Your task to perform on an android device: Open privacy settings Image 0: 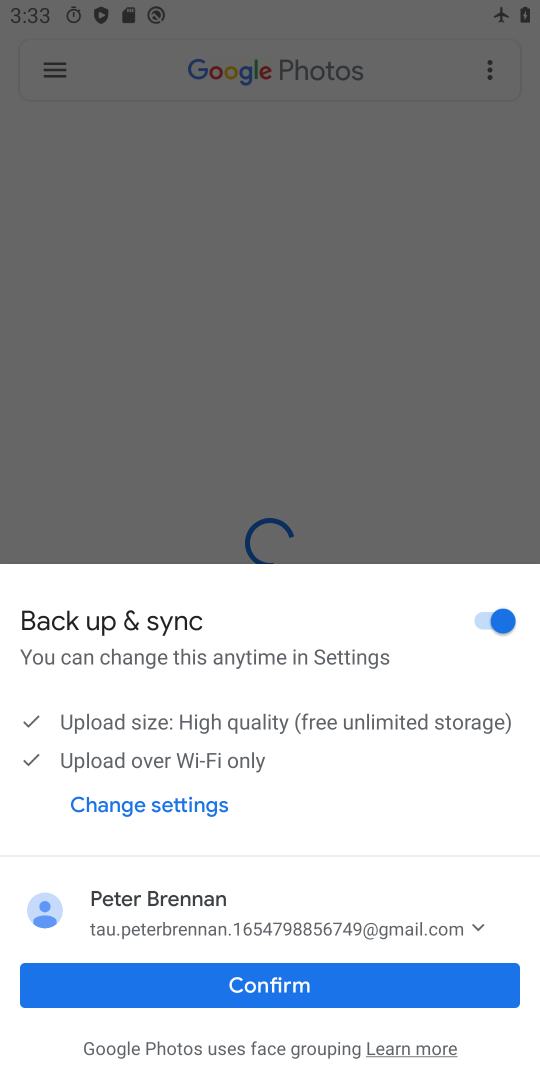
Step 0: press home button
Your task to perform on an android device: Open privacy settings Image 1: 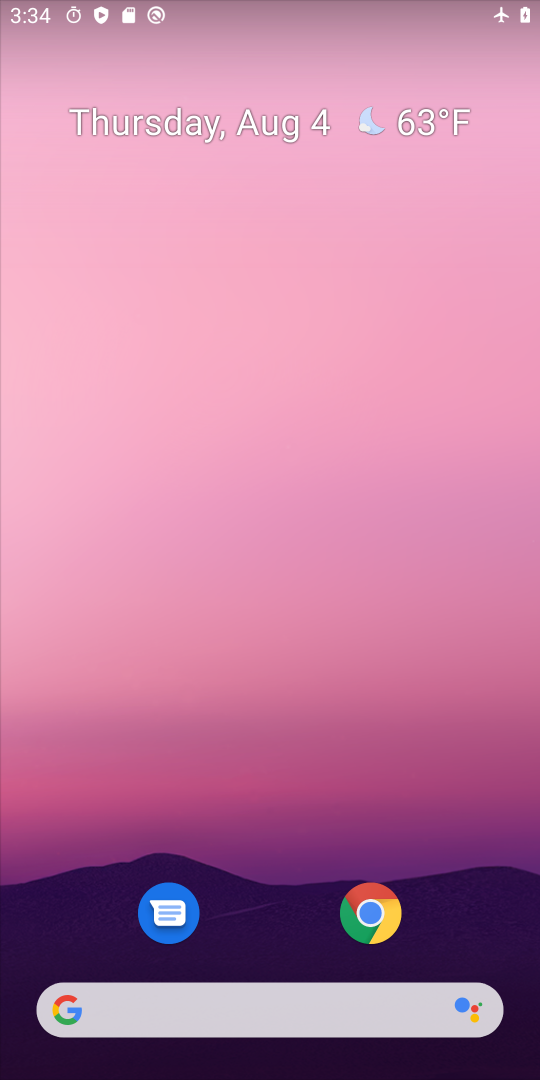
Step 1: drag from (370, 368) to (297, 0)
Your task to perform on an android device: Open privacy settings Image 2: 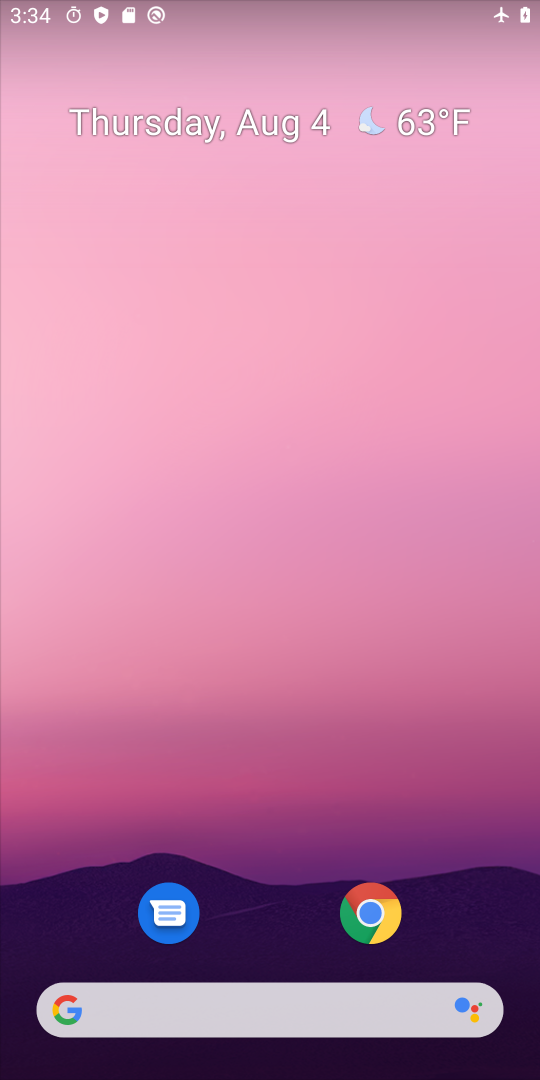
Step 2: drag from (283, 890) to (537, 117)
Your task to perform on an android device: Open privacy settings Image 3: 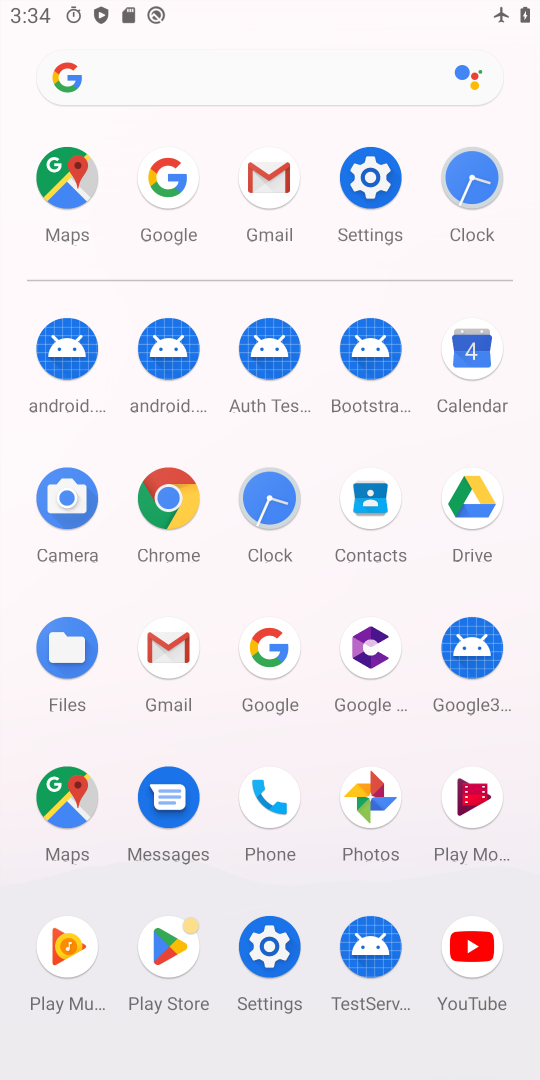
Step 3: click (344, 190)
Your task to perform on an android device: Open privacy settings Image 4: 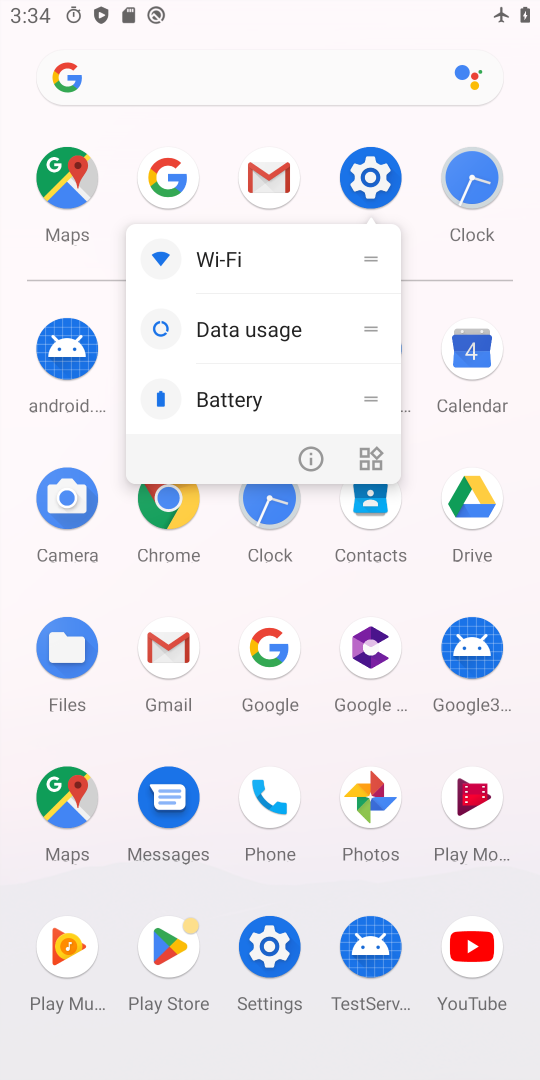
Step 4: click (369, 171)
Your task to perform on an android device: Open privacy settings Image 5: 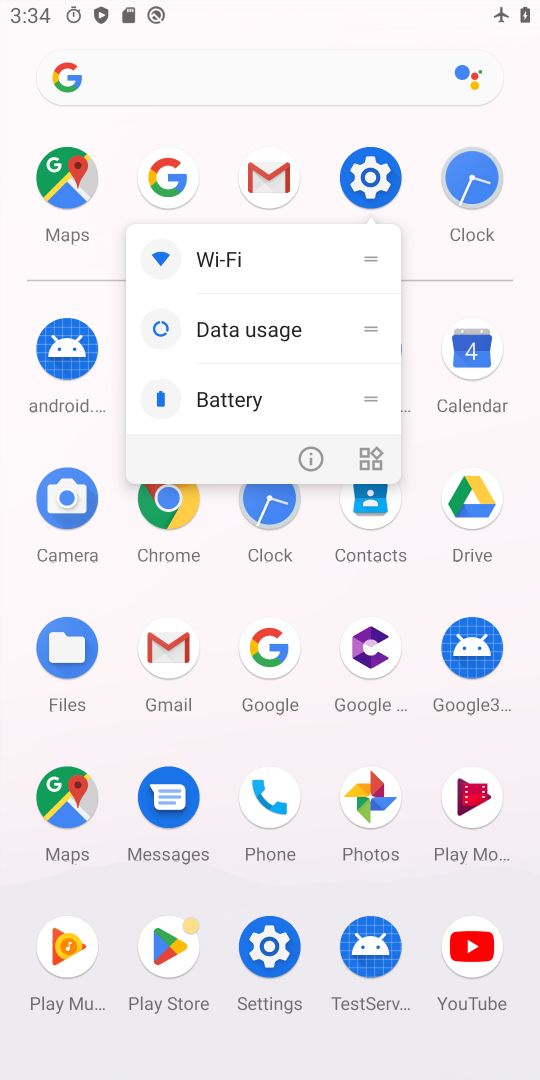
Step 5: click (374, 158)
Your task to perform on an android device: Open privacy settings Image 6: 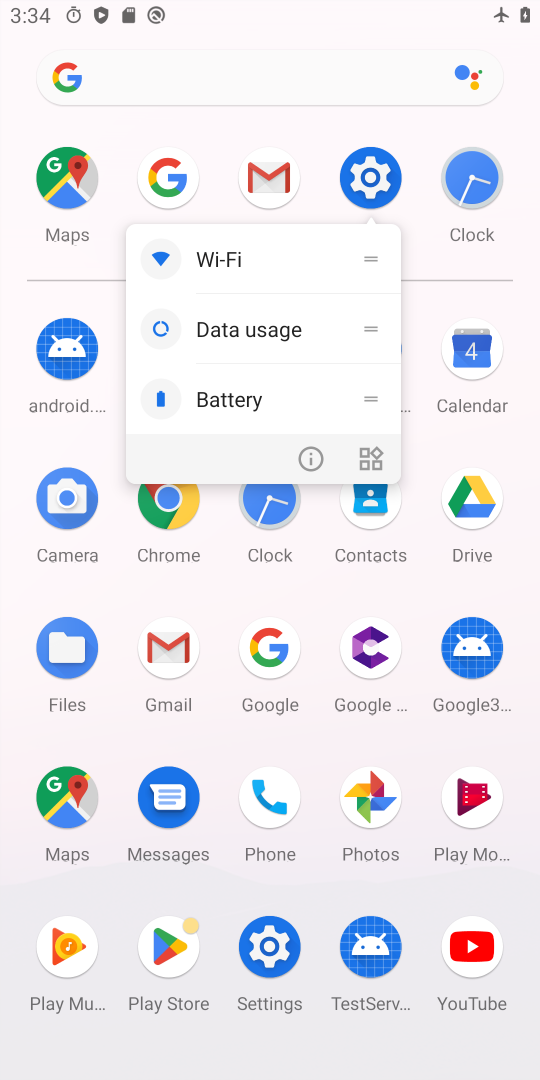
Step 6: click (374, 158)
Your task to perform on an android device: Open privacy settings Image 7: 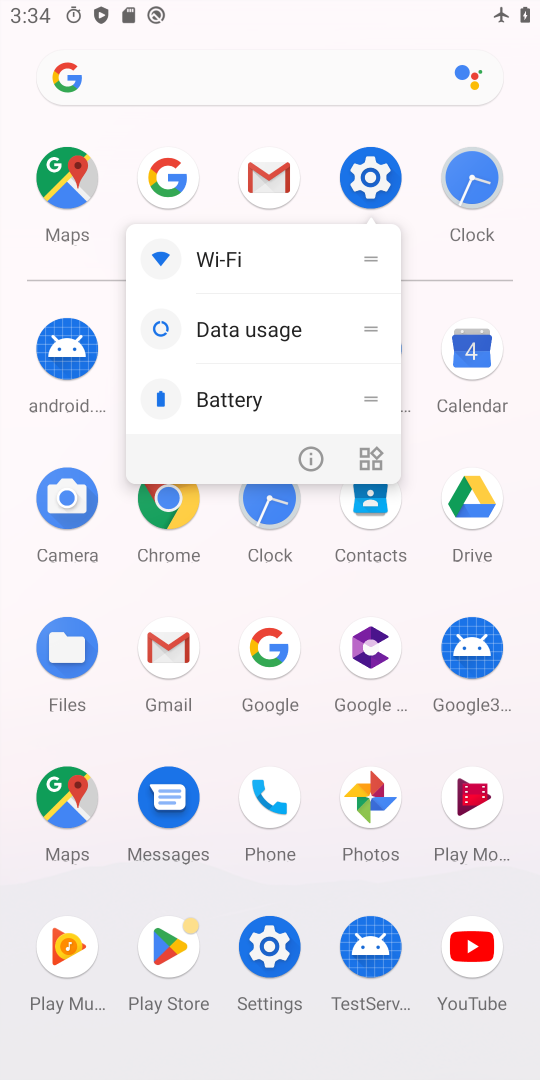
Step 7: click (382, 183)
Your task to perform on an android device: Open privacy settings Image 8: 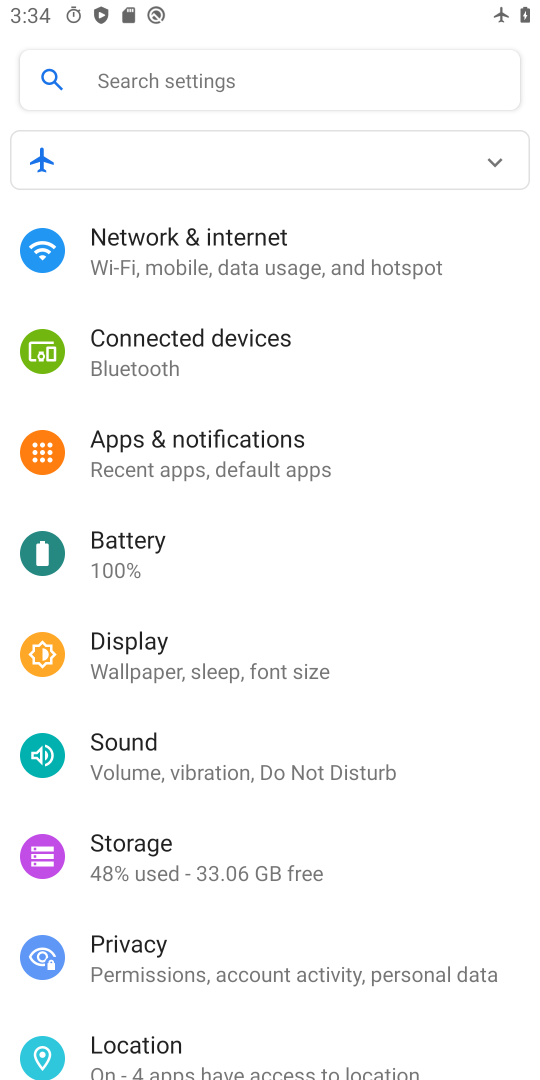
Step 8: click (134, 542)
Your task to perform on an android device: Open privacy settings Image 9: 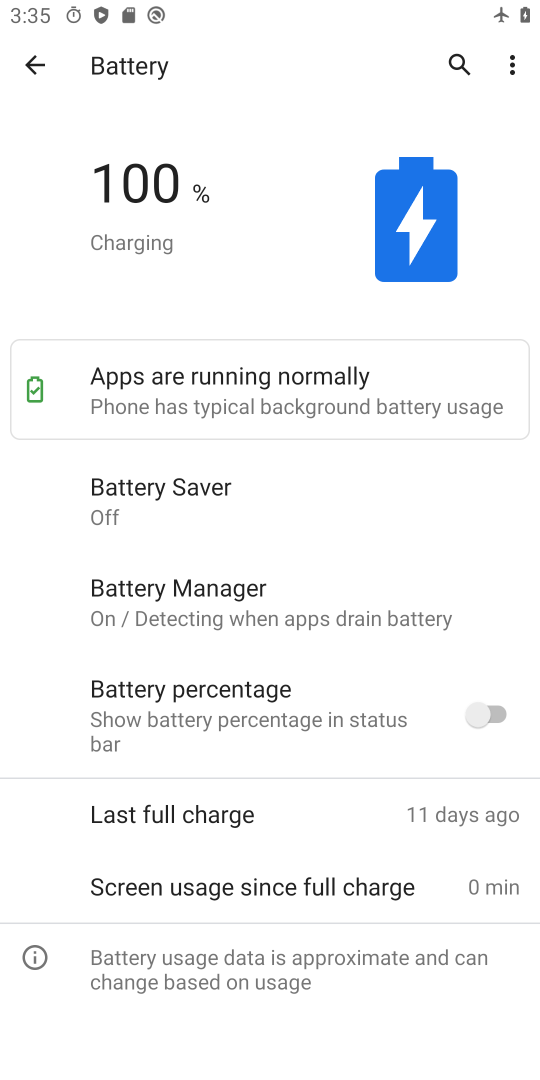
Step 9: press back button
Your task to perform on an android device: Open privacy settings Image 10: 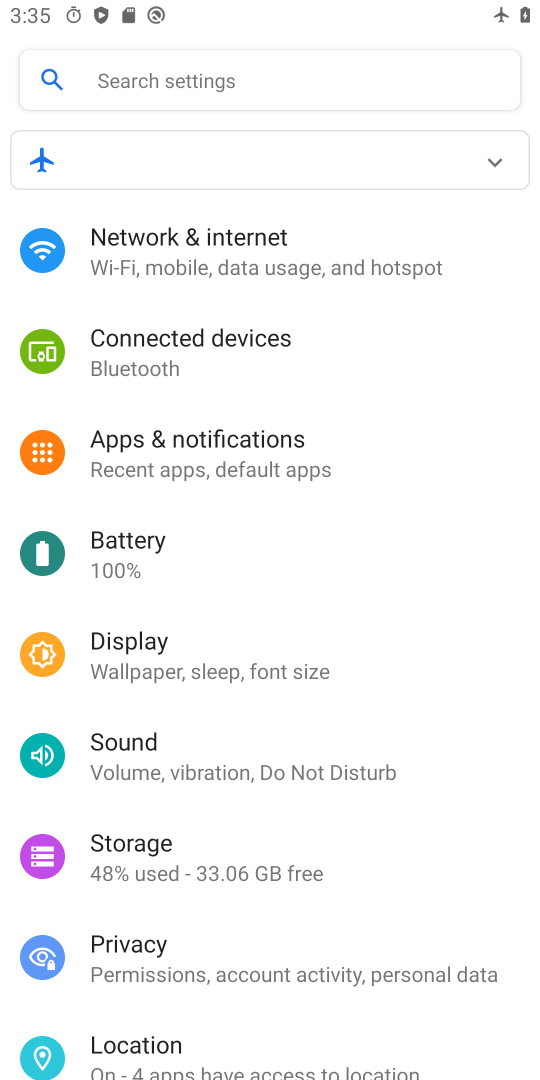
Step 10: click (195, 954)
Your task to perform on an android device: Open privacy settings Image 11: 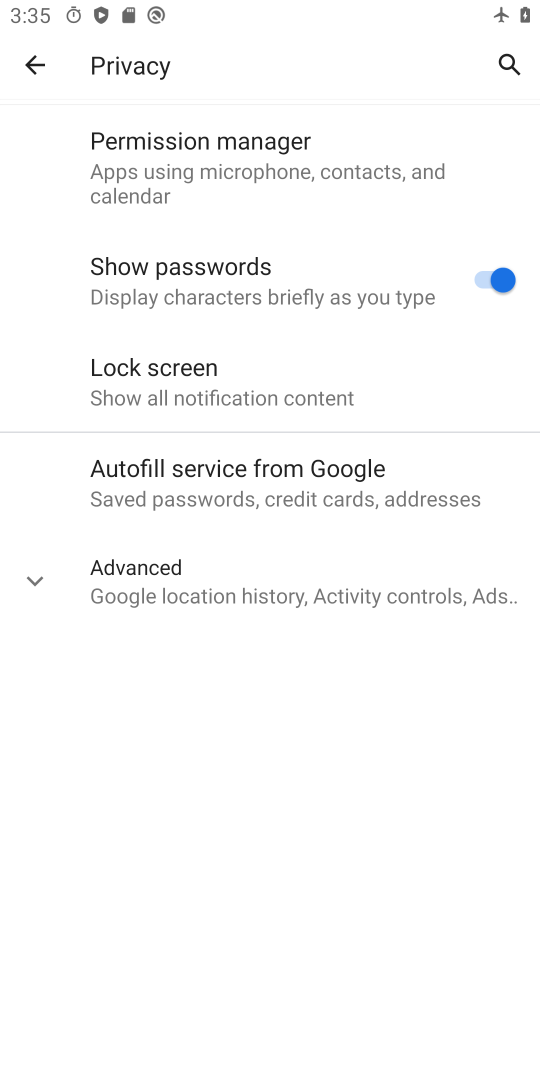
Step 11: task complete